Your task to perform on an android device: Open Chrome and go to settings Image 0: 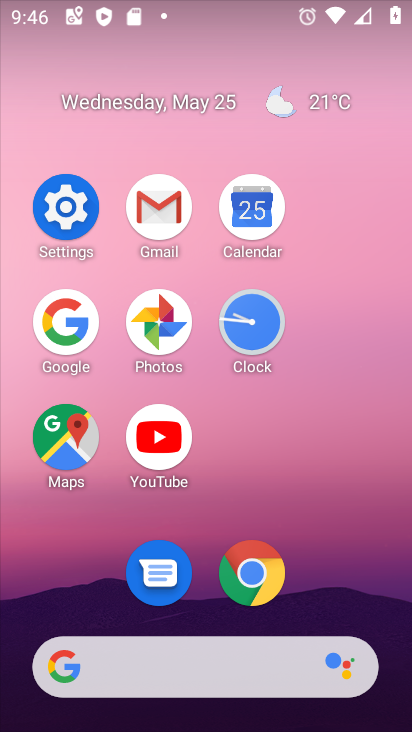
Step 0: click (287, 572)
Your task to perform on an android device: Open Chrome and go to settings Image 1: 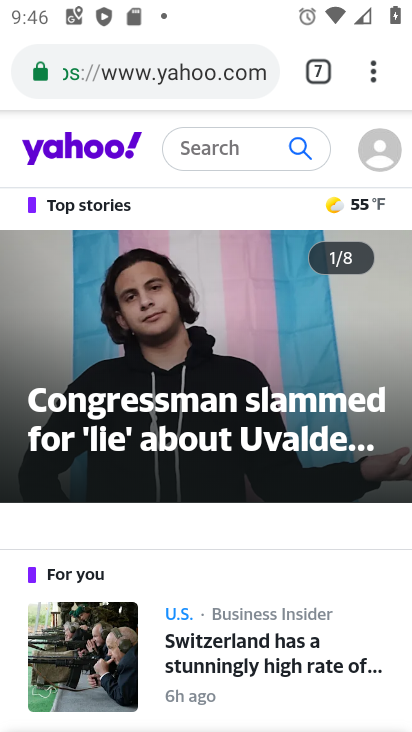
Step 1: click (378, 92)
Your task to perform on an android device: Open Chrome and go to settings Image 2: 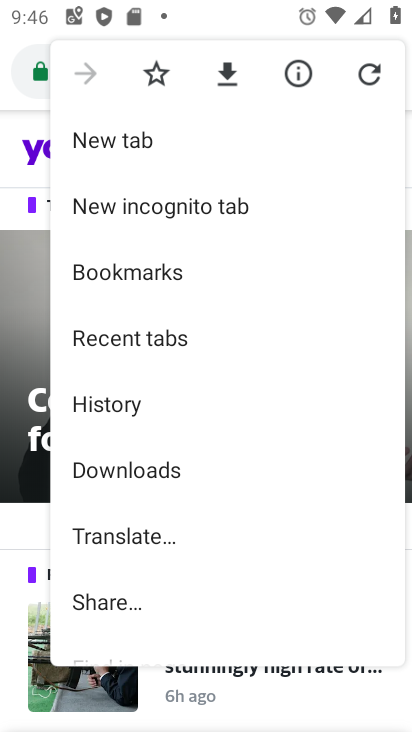
Step 2: drag from (239, 431) to (260, 176)
Your task to perform on an android device: Open Chrome and go to settings Image 3: 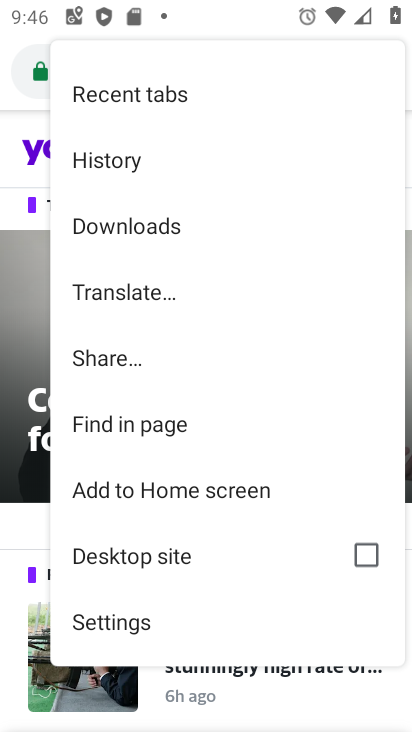
Step 3: click (110, 619)
Your task to perform on an android device: Open Chrome and go to settings Image 4: 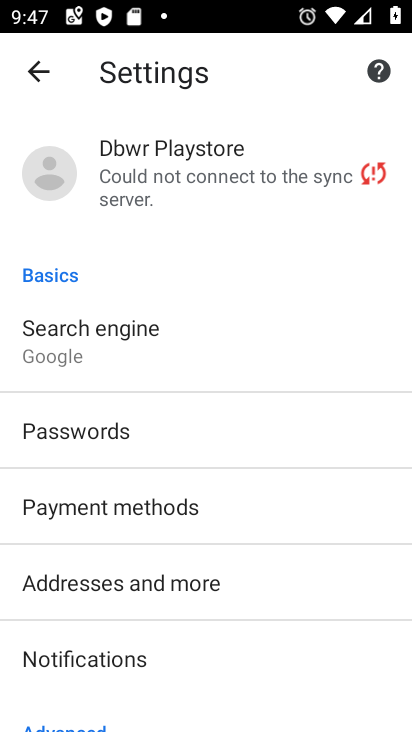
Step 4: task complete